Your task to perform on an android device: install app "Indeed Job Search" Image 0: 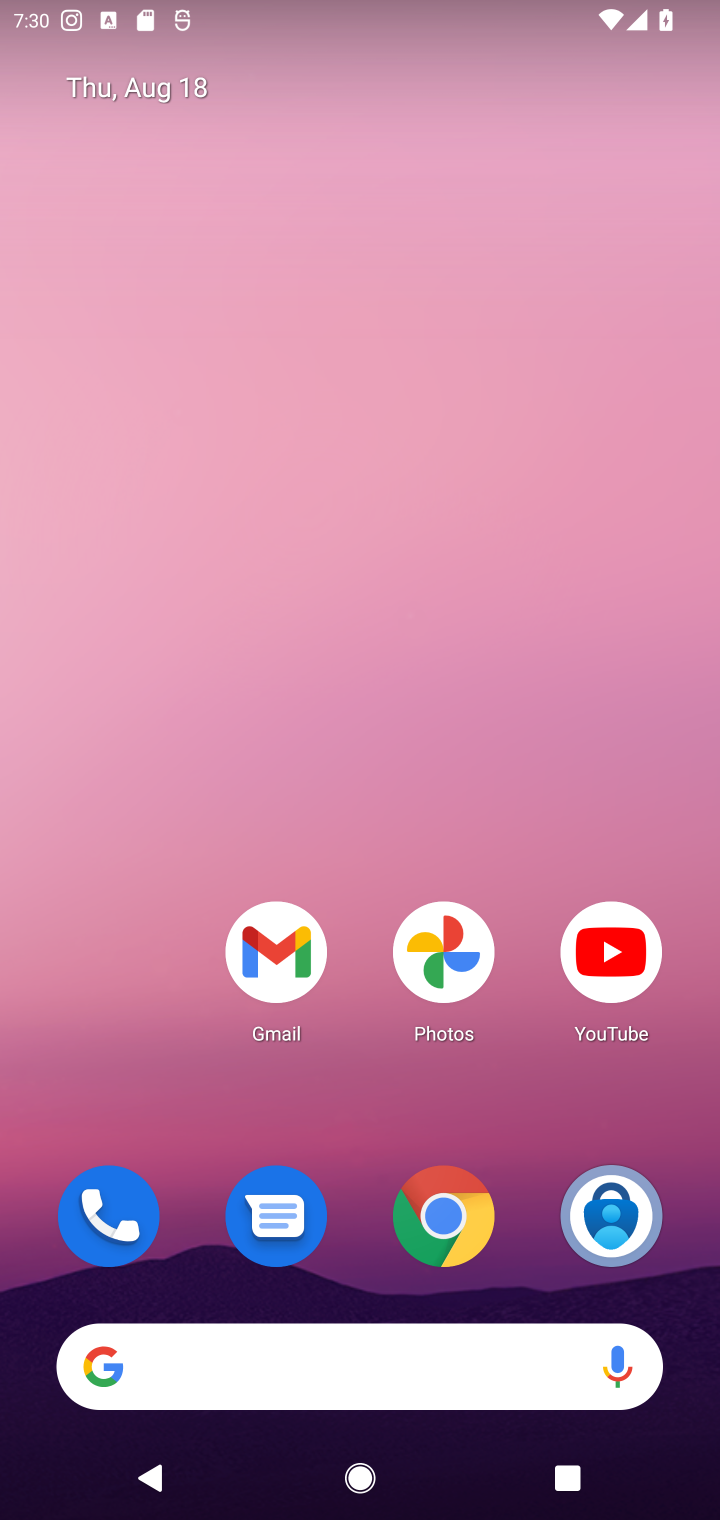
Step 0: drag from (408, 929) to (408, 138)
Your task to perform on an android device: install app "Indeed Job Search" Image 1: 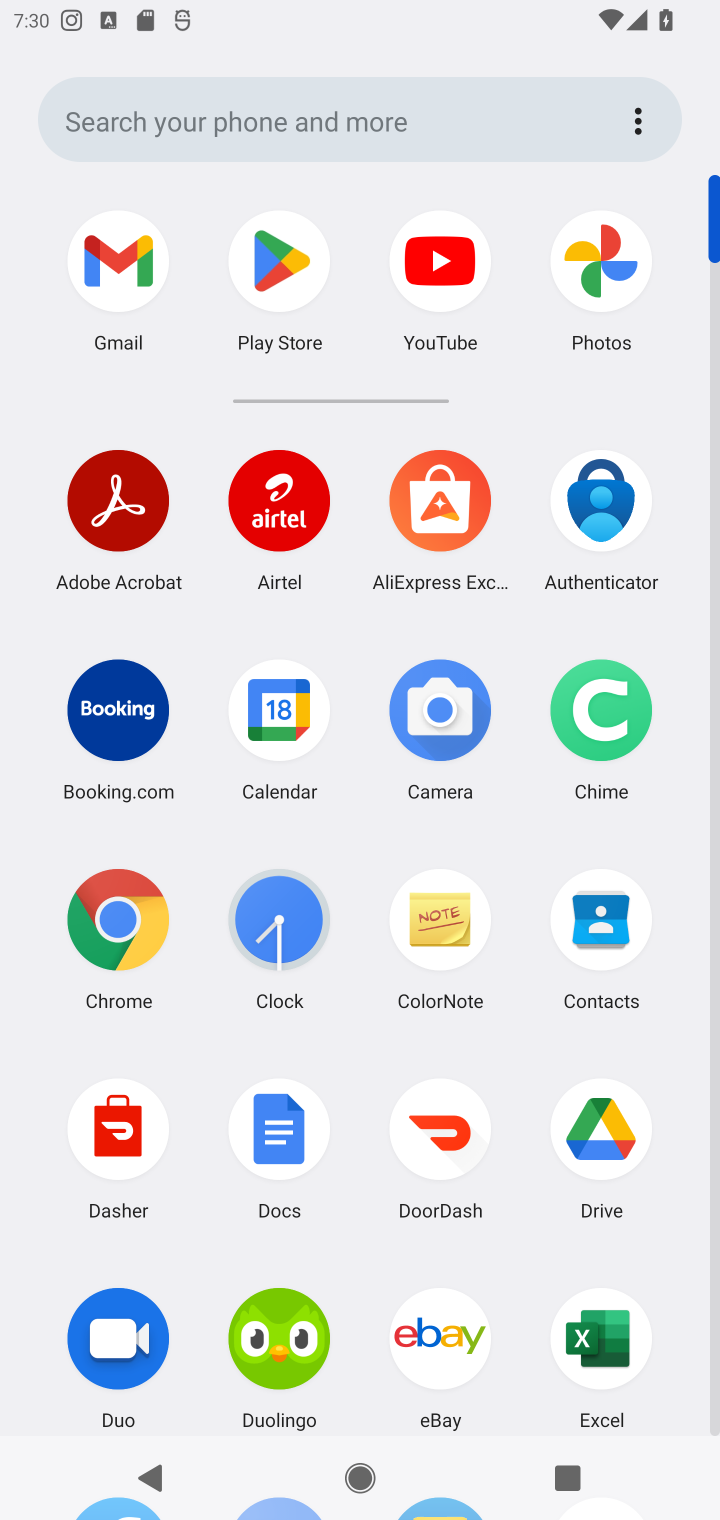
Step 1: click (295, 263)
Your task to perform on an android device: install app "Indeed Job Search" Image 2: 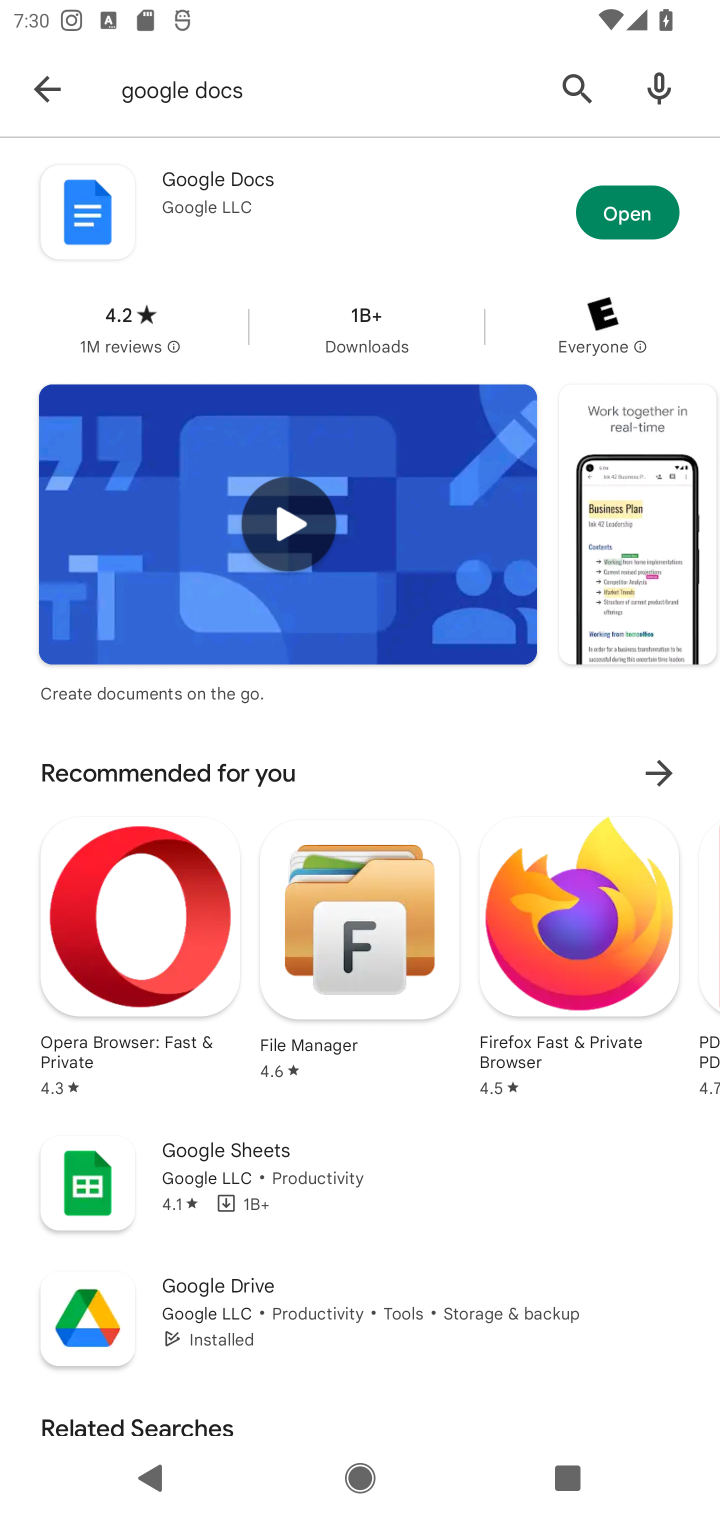
Step 2: click (589, 88)
Your task to perform on an android device: install app "Indeed Job Search" Image 3: 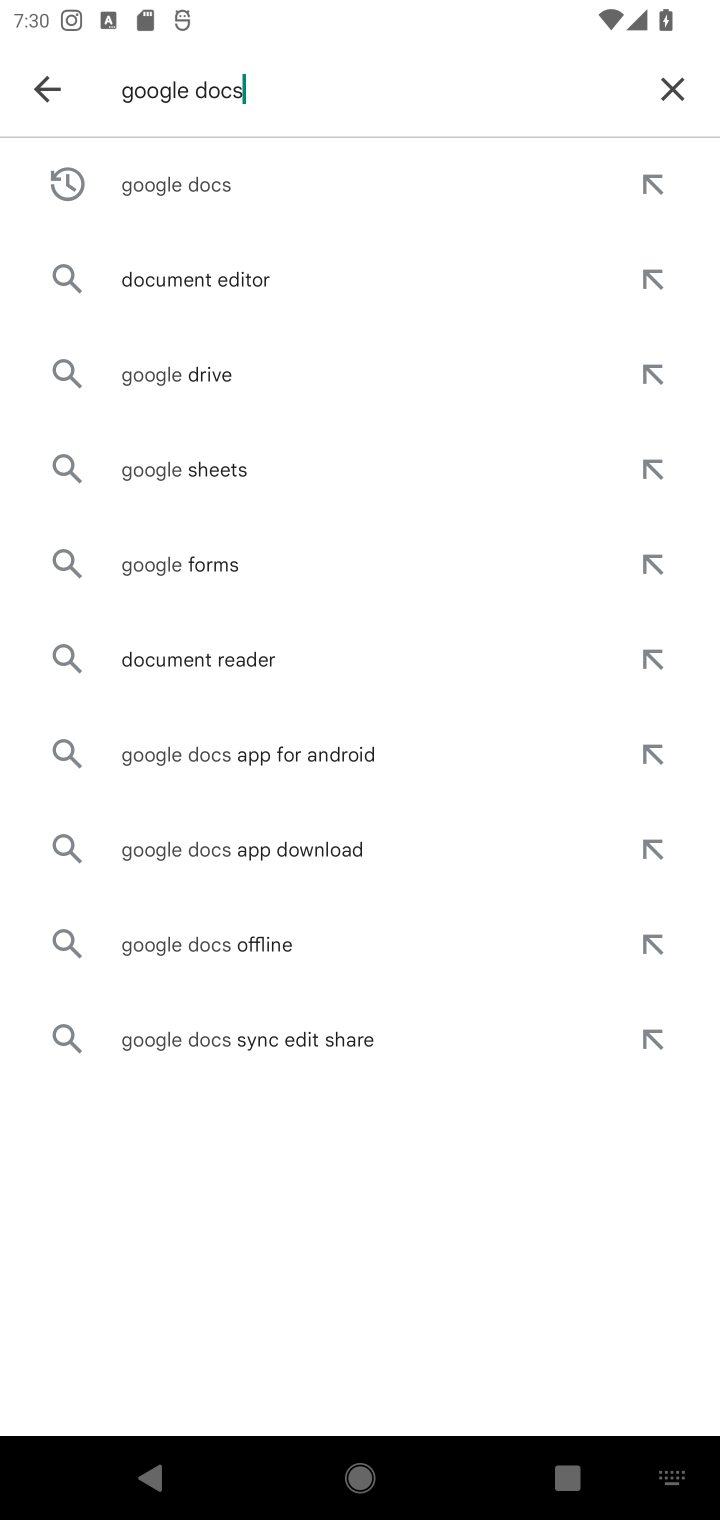
Step 3: click (656, 83)
Your task to perform on an android device: install app "Indeed Job Search" Image 4: 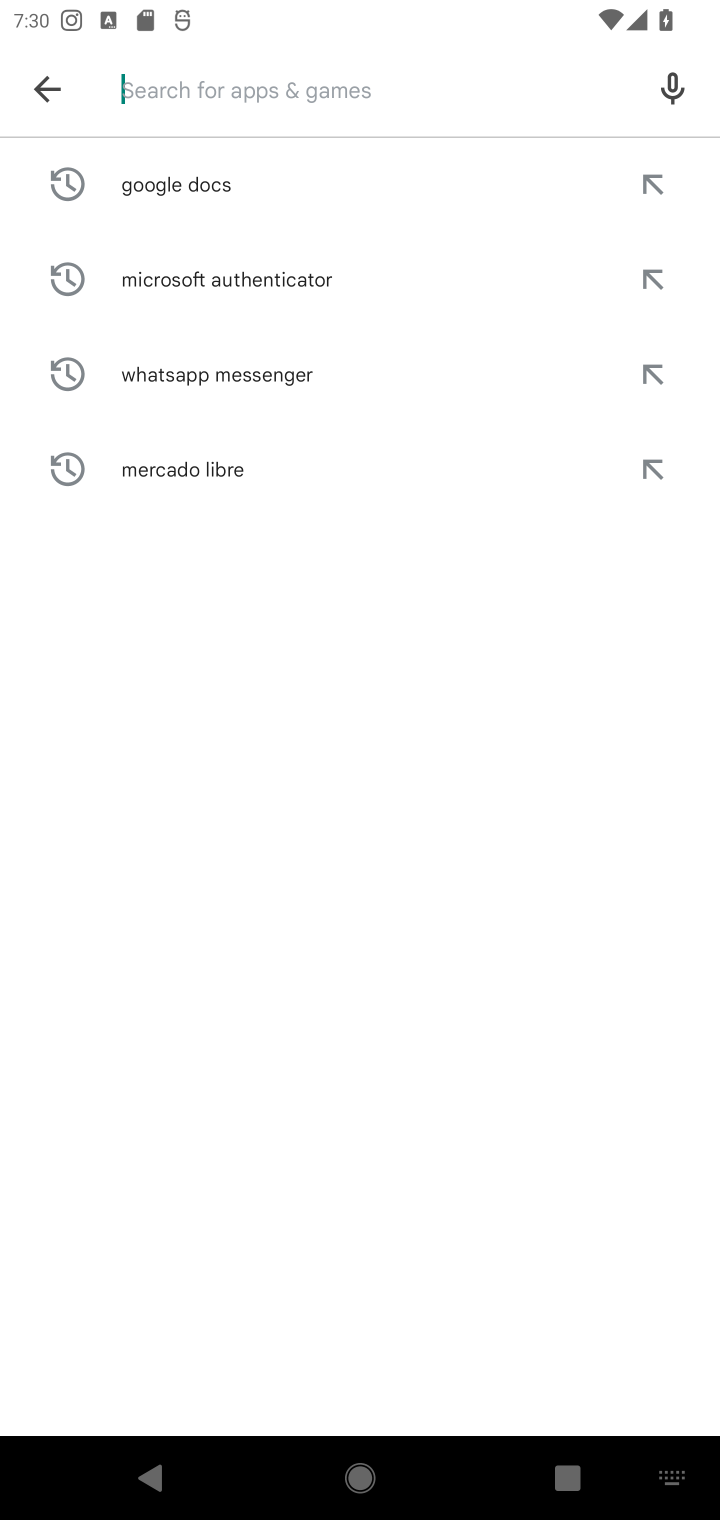
Step 4: type "Indeed Job Search"
Your task to perform on an android device: install app "Indeed Job Search" Image 5: 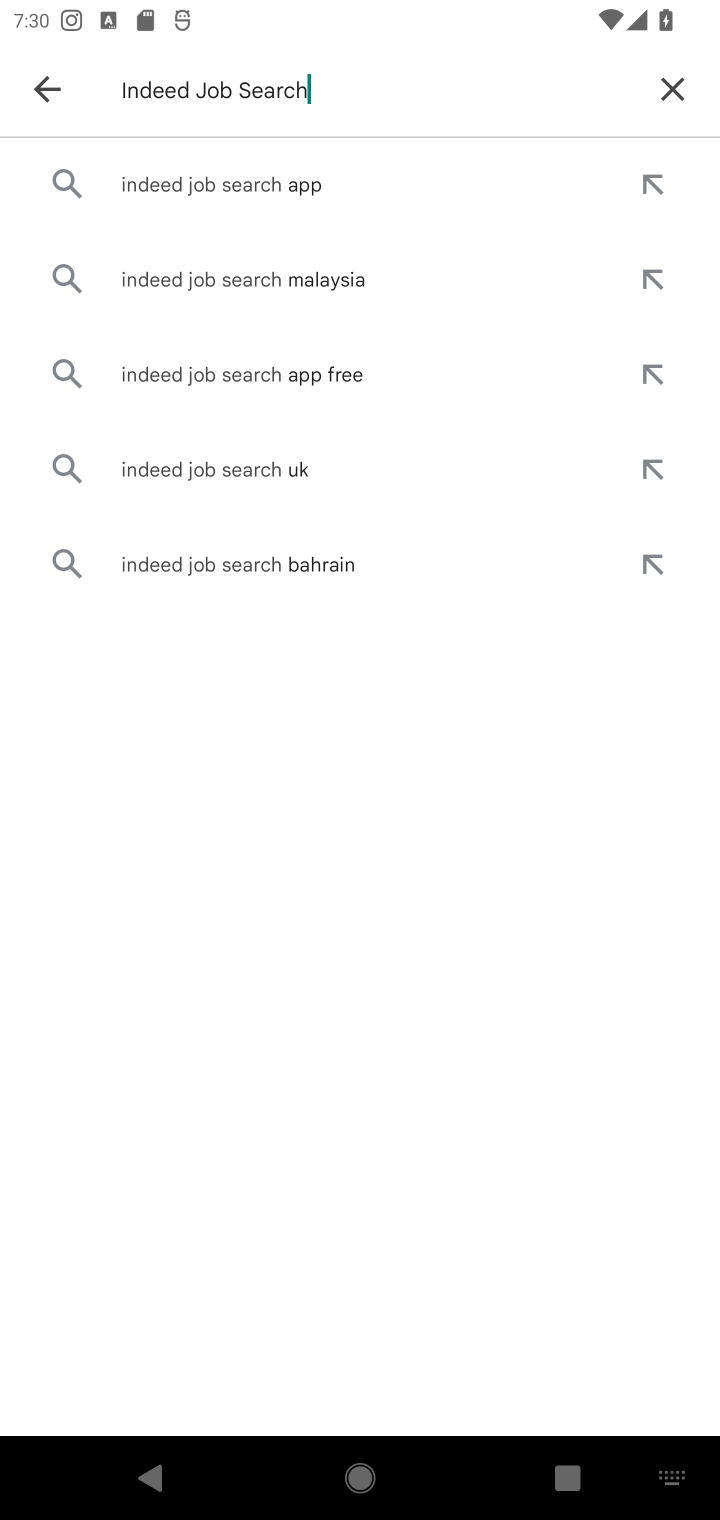
Step 5: click (335, 197)
Your task to perform on an android device: install app "Indeed Job Search" Image 6: 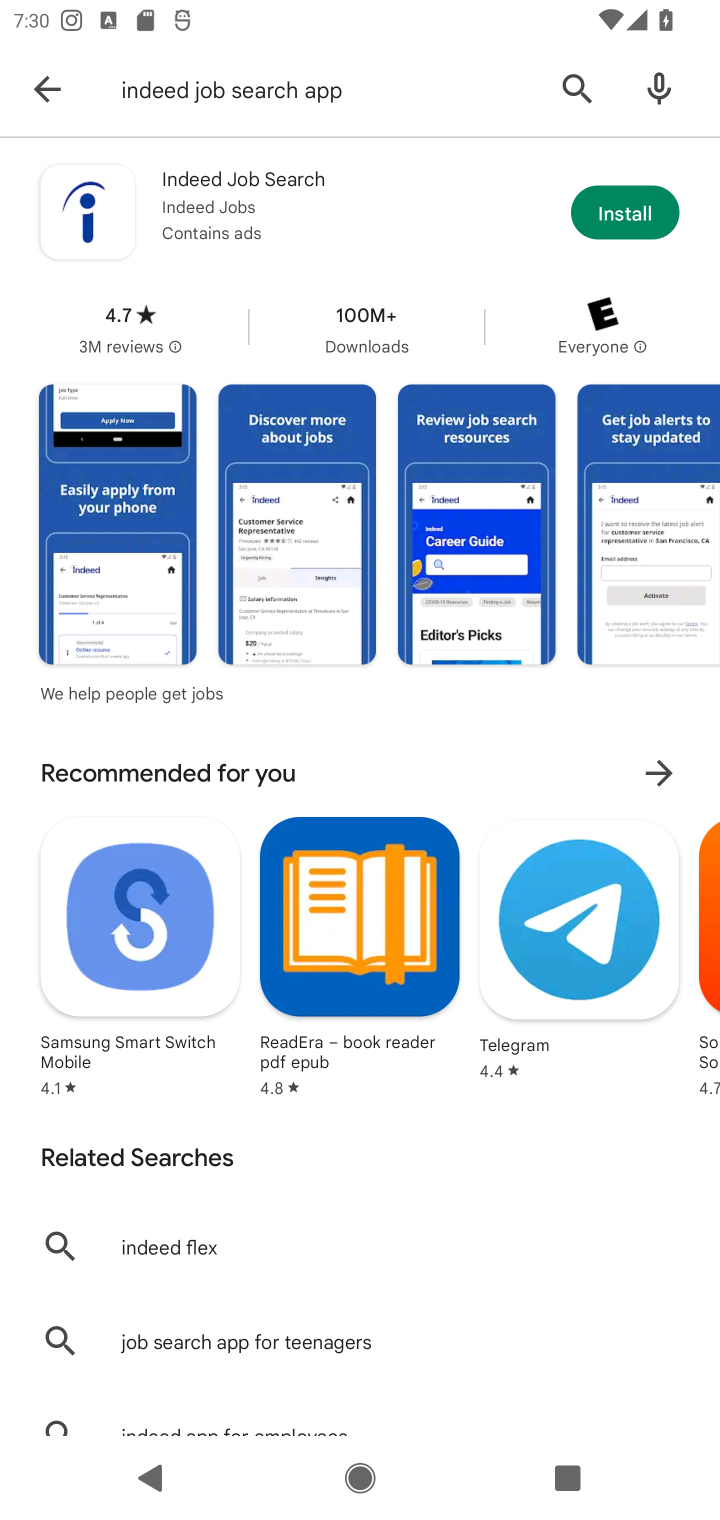
Step 6: click (618, 206)
Your task to perform on an android device: install app "Indeed Job Search" Image 7: 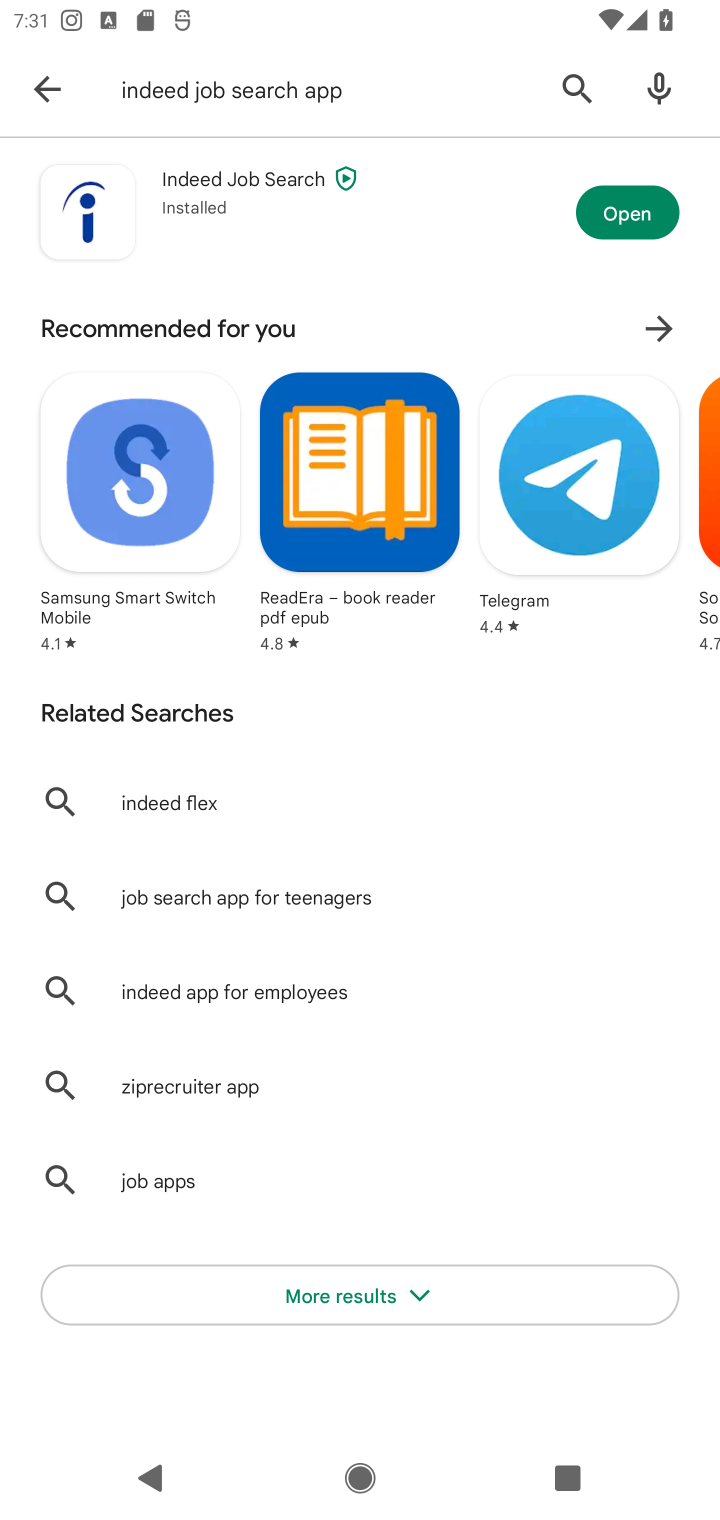
Step 7: task complete